Your task to perform on an android device: Show me recent news Image 0: 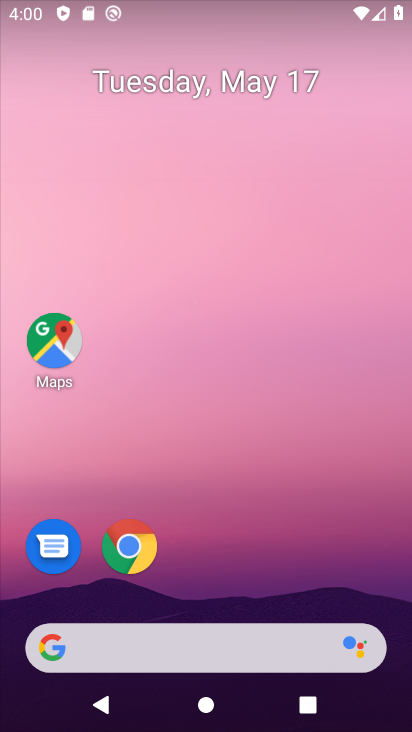
Step 0: click (250, 611)
Your task to perform on an android device: Show me recent news Image 1: 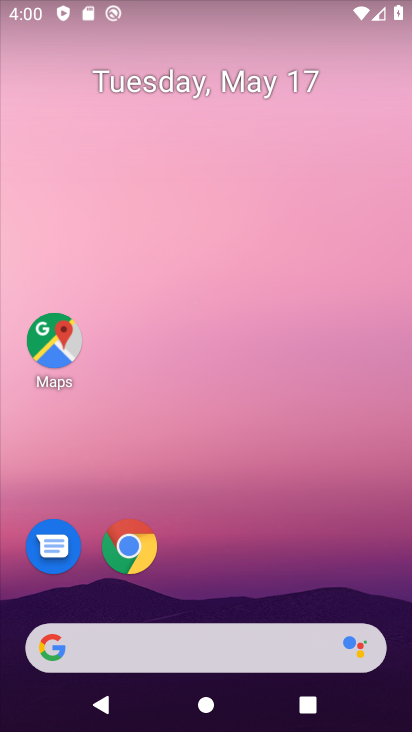
Step 1: click (230, 630)
Your task to perform on an android device: Show me recent news Image 2: 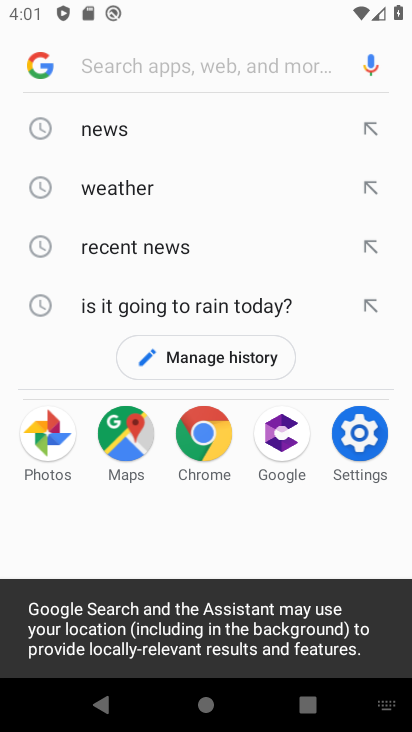
Step 2: click (193, 102)
Your task to perform on an android device: Show me recent news Image 3: 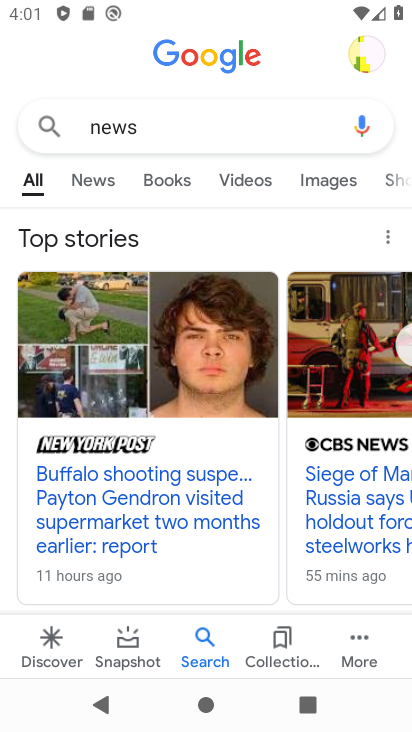
Step 3: click (109, 175)
Your task to perform on an android device: Show me recent news Image 4: 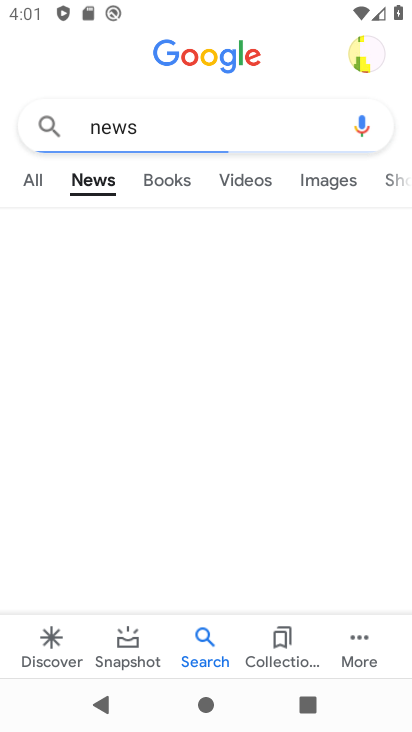
Step 4: task complete